Your task to perform on an android device: Open internet settings Image 0: 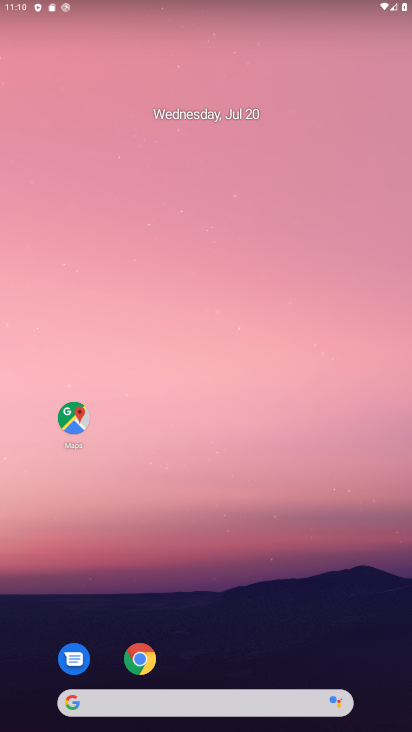
Step 0: drag from (368, 640) to (337, 105)
Your task to perform on an android device: Open internet settings Image 1: 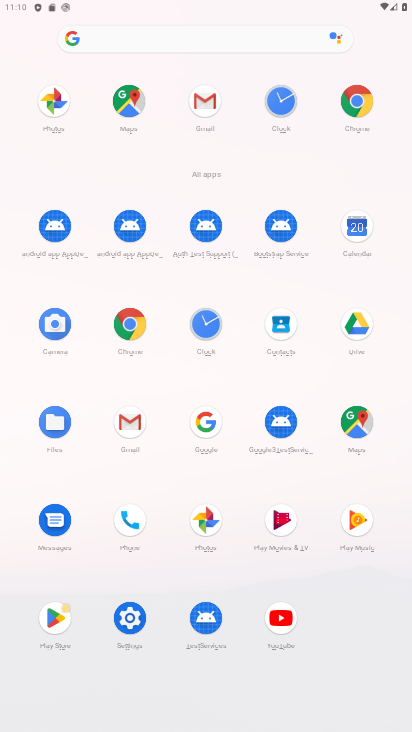
Step 1: drag from (139, 614) to (167, 381)
Your task to perform on an android device: Open internet settings Image 2: 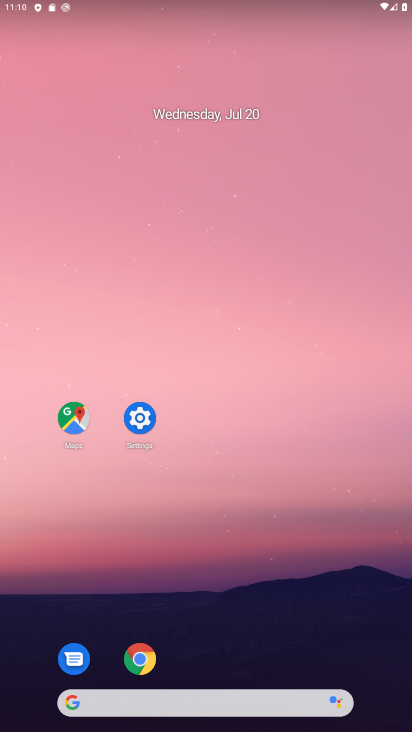
Step 2: click (149, 410)
Your task to perform on an android device: Open internet settings Image 3: 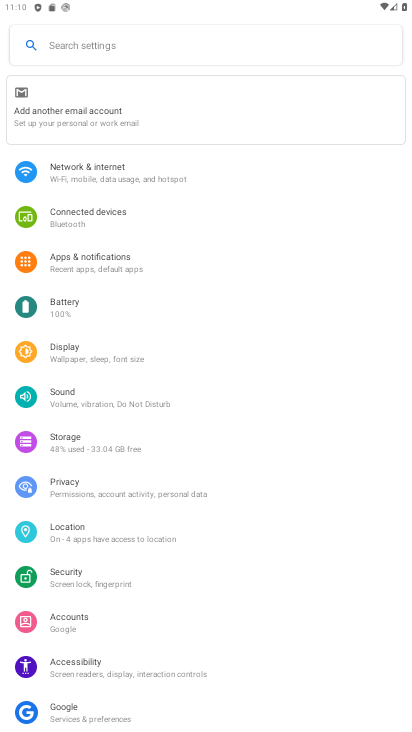
Step 3: click (100, 167)
Your task to perform on an android device: Open internet settings Image 4: 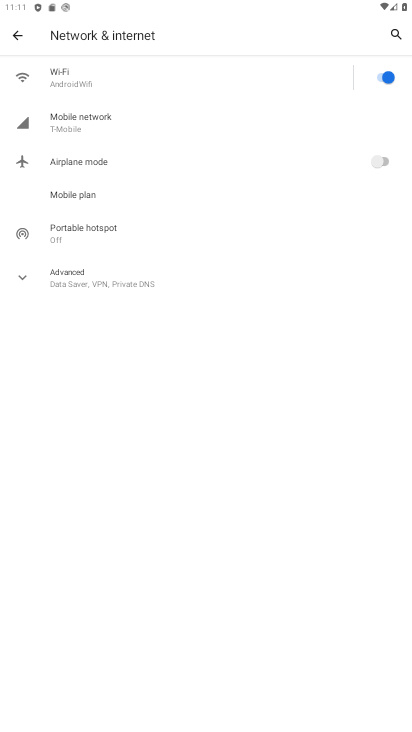
Step 4: click (86, 115)
Your task to perform on an android device: Open internet settings Image 5: 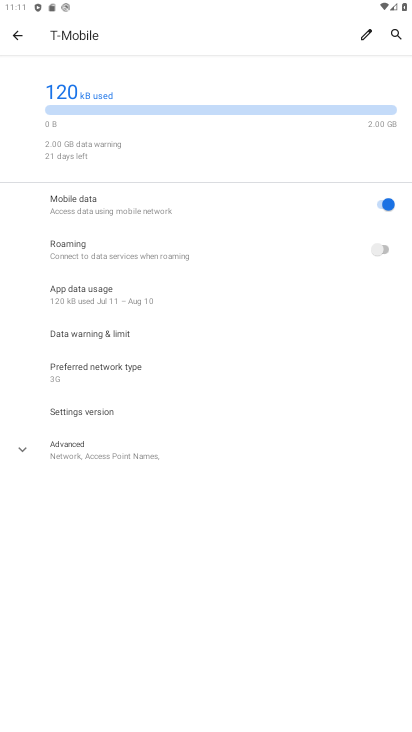
Step 5: click (9, 39)
Your task to perform on an android device: Open internet settings Image 6: 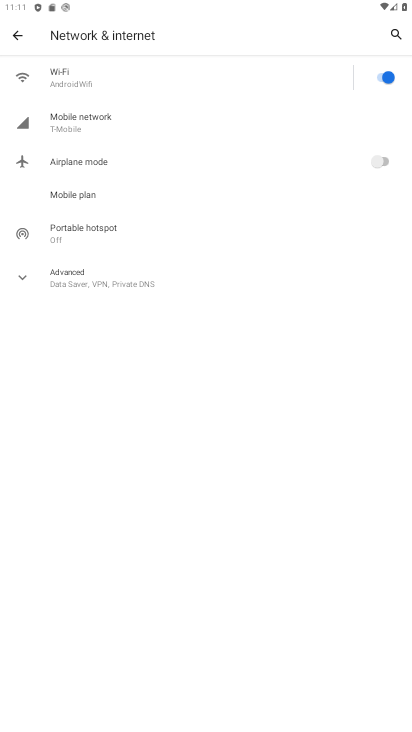
Step 6: click (21, 271)
Your task to perform on an android device: Open internet settings Image 7: 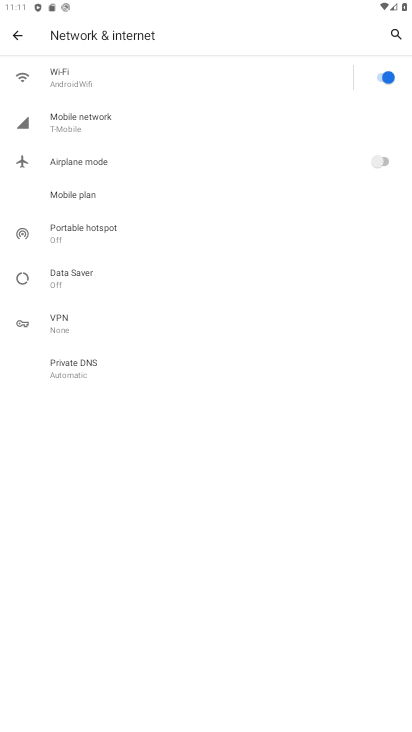
Step 7: task complete